Your task to perform on an android device: Do I have any events today? Image 0: 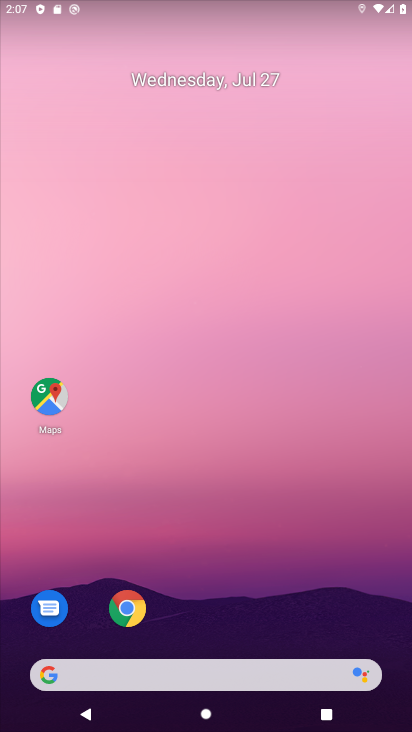
Step 0: drag from (182, 559) to (123, 94)
Your task to perform on an android device: Do I have any events today? Image 1: 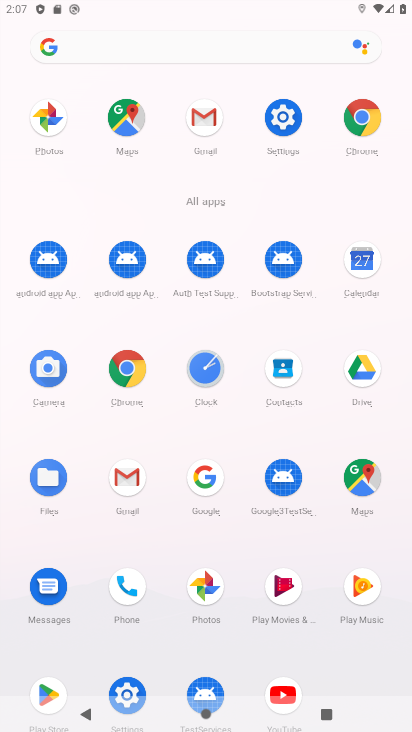
Step 1: click (362, 259)
Your task to perform on an android device: Do I have any events today? Image 2: 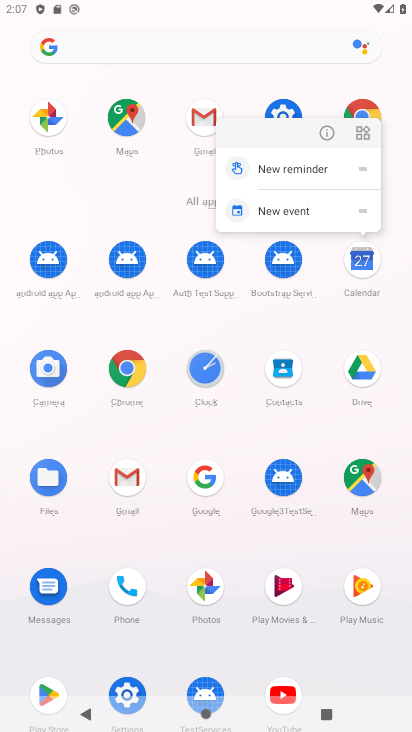
Step 2: click (361, 265)
Your task to perform on an android device: Do I have any events today? Image 3: 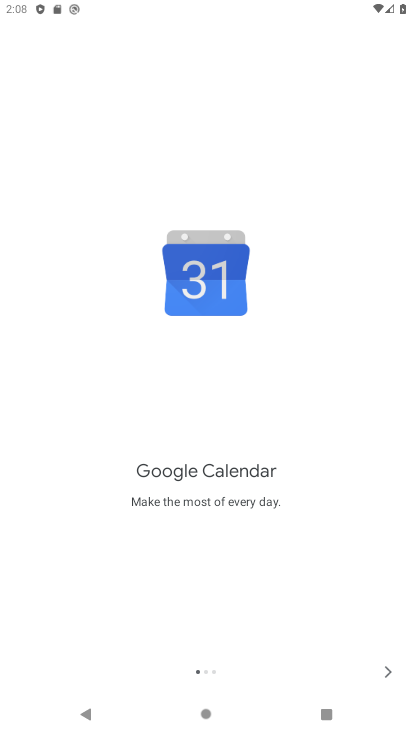
Step 3: click (377, 667)
Your task to perform on an android device: Do I have any events today? Image 4: 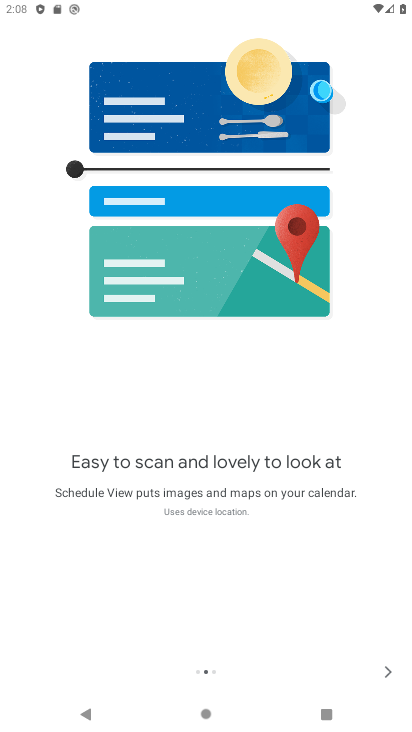
Step 4: click (378, 667)
Your task to perform on an android device: Do I have any events today? Image 5: 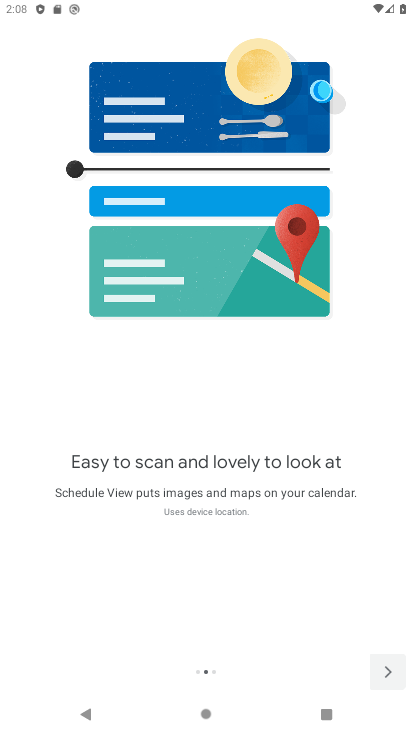
Step 5: click (378, 667)
Your task to perform on an android device: Do I have any events today? Image 6: 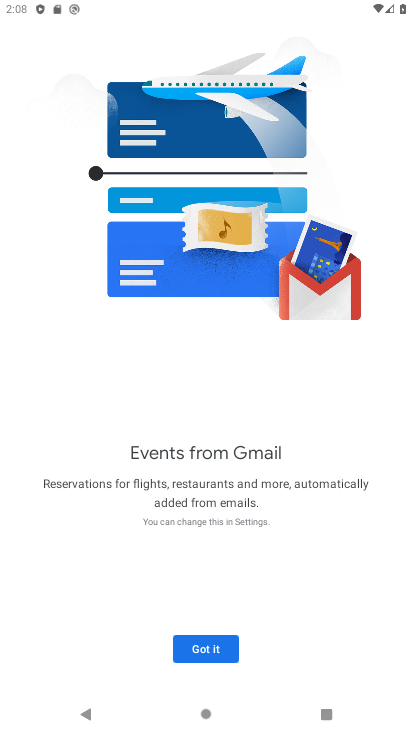
Step 6: click (201, 645)
Your task to perform on an android device: Do I have any events today? Image 7: 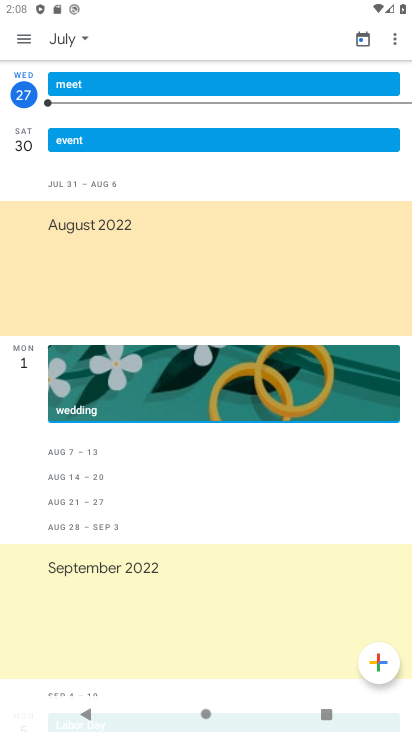
Step 7: task complete